Your task to perform on an android device: clear history in the chrome app Image 0: 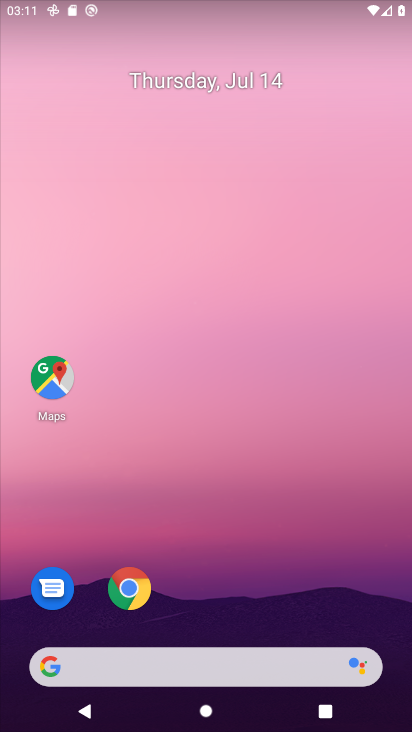
Step 0: drag from (289, 610) to (236, 116)
Your task to perform on an android device: clear history in the chrome app Image 1: 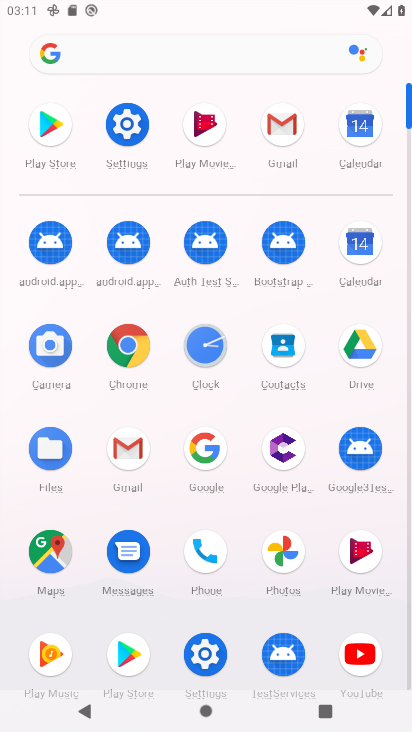
Step 1: click (129, 345)
Your task to perform on an android device: clear history in the chrome app Image 2: 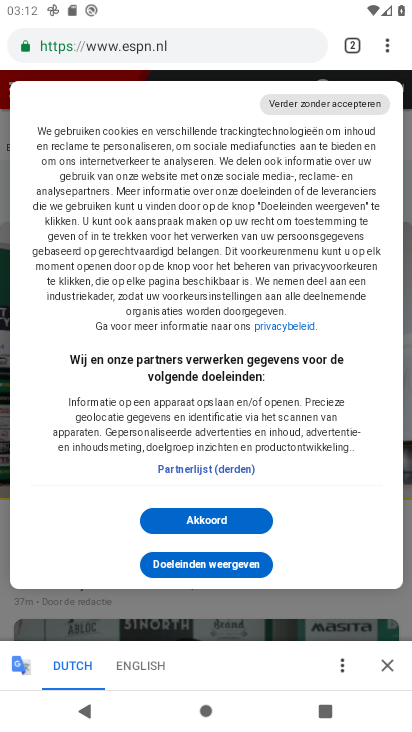
Step 2: click (389, 46)
Your task to perform on an android device: clear history in the chrome app Image 3: 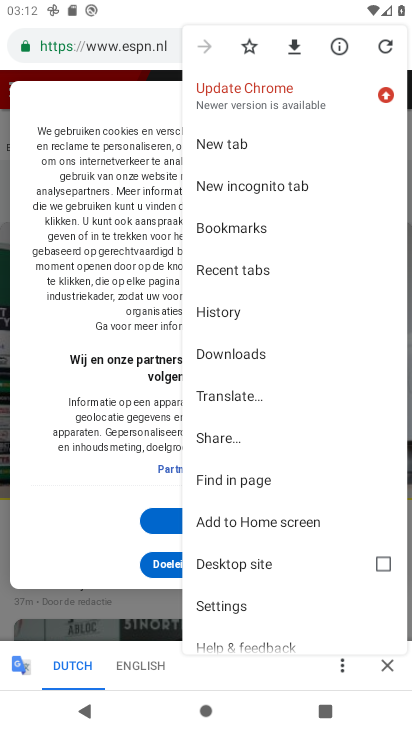
Step 3: click (283, 313)
Your task to perform on an android device: clear history in the chrome app Image 4: 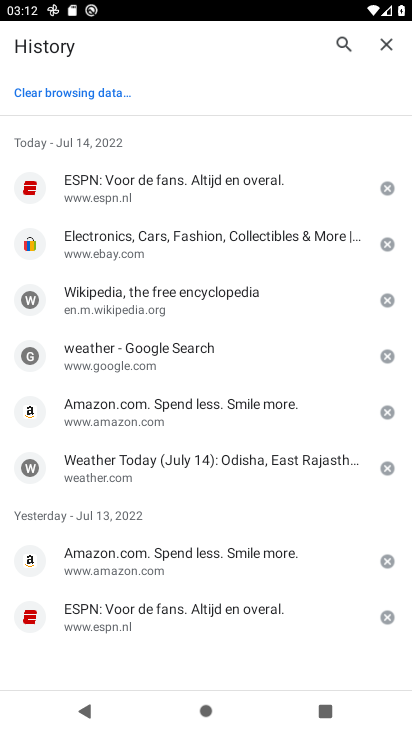
Step 4: click (55, 96)
Your task to perform on an android device: clear history in the chrome app Image 5: 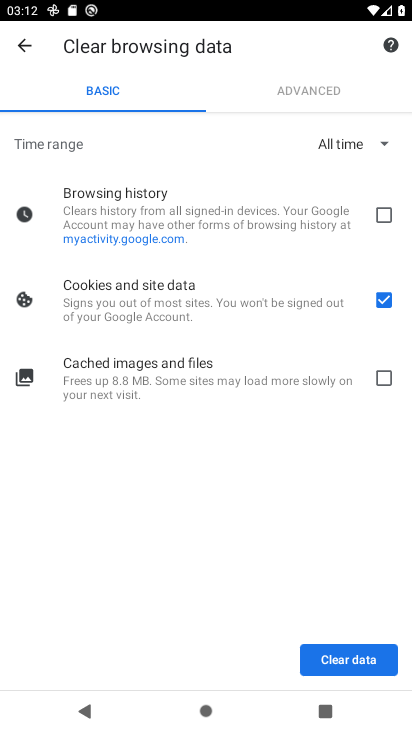
Step 5: click (386, 303)
Your task to perform on an android device: clear history in the chrome app Image 6: 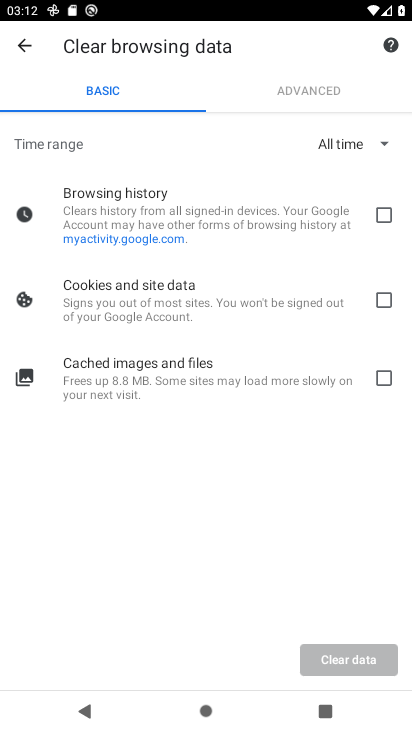
Step 6: click (388, 225)
Your task to perform on an android device: clear history in the chrome app Image 7: 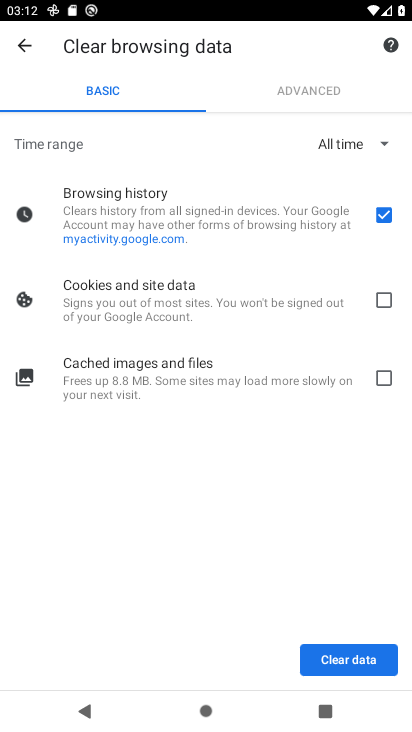
Step 7: click (352, 667)
Your task to perform on an android device: clear history in the chrome app Image 8: 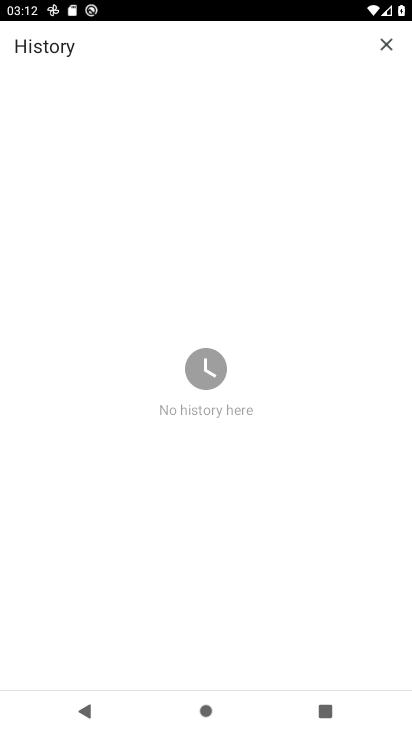
Step 8: task complete